Your task to perform on an android device: turn pop-ups on in chrome Image 0: 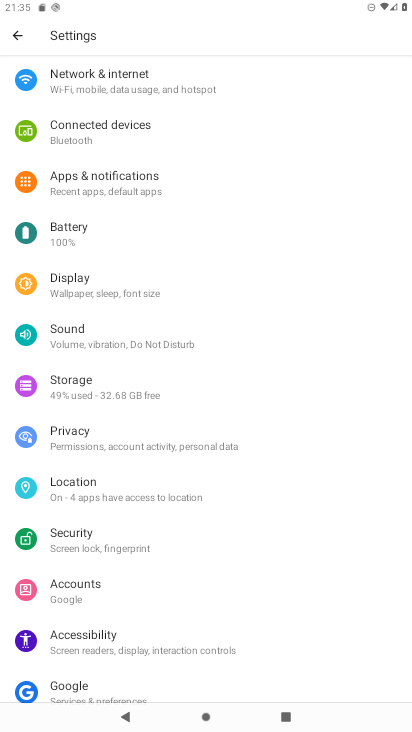
Step 0: drag from (116, 570) to (126, 359)
Your task to perform on an android device: turn pop-ups on in chrome Image 1: 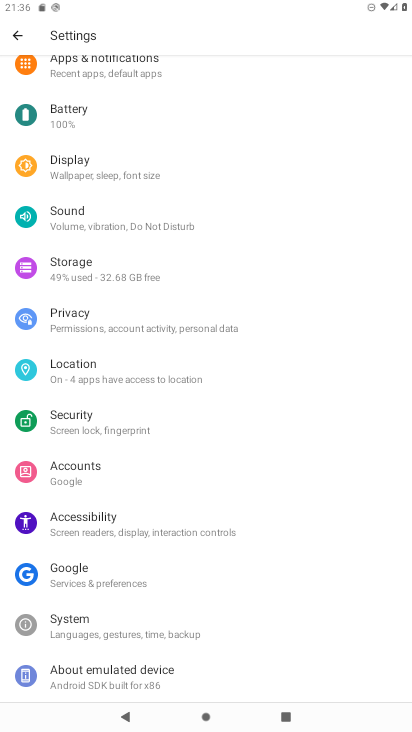
Step 1: drag from (391, 378) to (312, 252)
Your task to perform on an android device: turn pop-ups on in chrome Image 2: 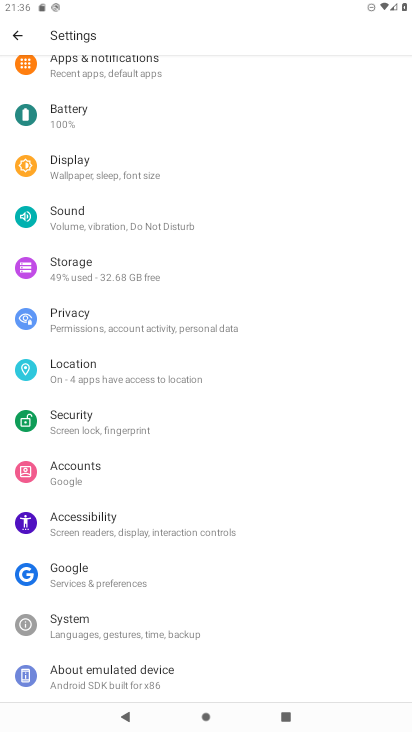
Step 2: press home button
Your task to perform on an android device: turn pop-ups on in chrome Image 3: 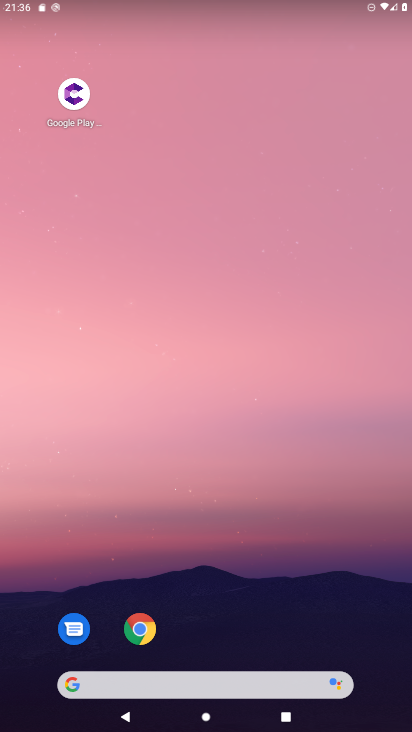
Step 3: drag from (235, 608) to (223, 207)
Your task to perform on an android device: turn pop-ups on in chrome Image 4: 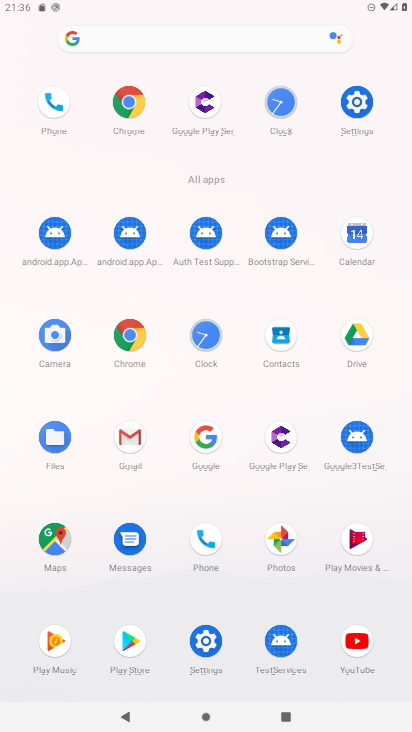
Step 4: click (129, 343)
Your task to perform on an android device: turn pop-ups on in chrome Image 5: 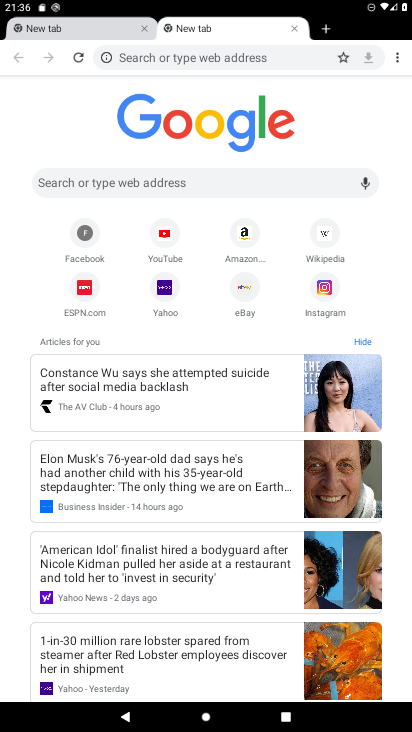
Step 5: click (397, 68)
Your task to perform on an android device: turn pop-ups on in chrome Image 6: 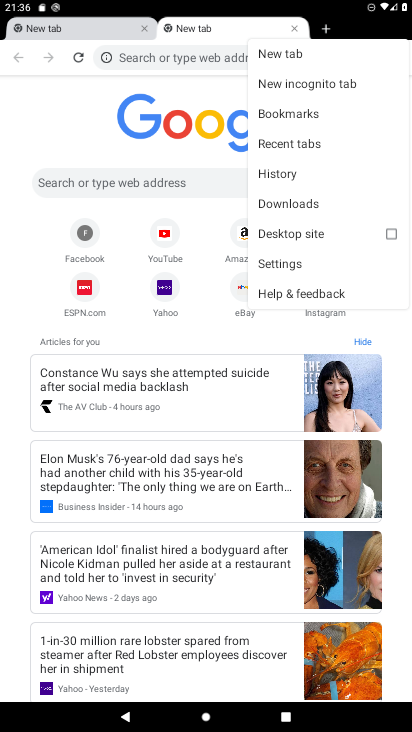
Step 6: click (312, 261)
Your task to perform on an android device: turn pop-ups on in chrome Image 7: 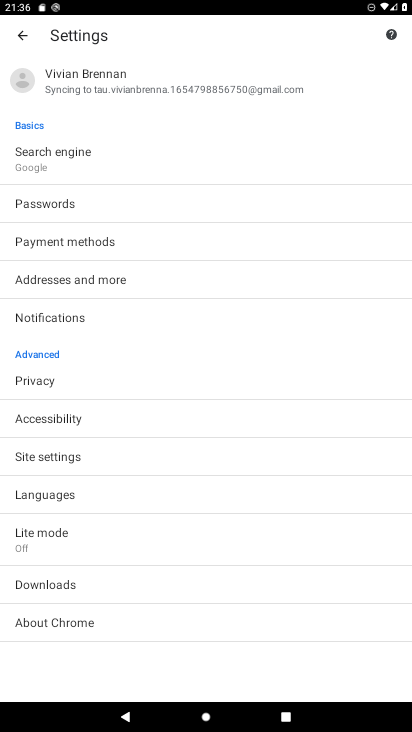
Step 7: click (67, 453)
Your task to perform on an android device: turn pop-ups on in chrome Image 8: 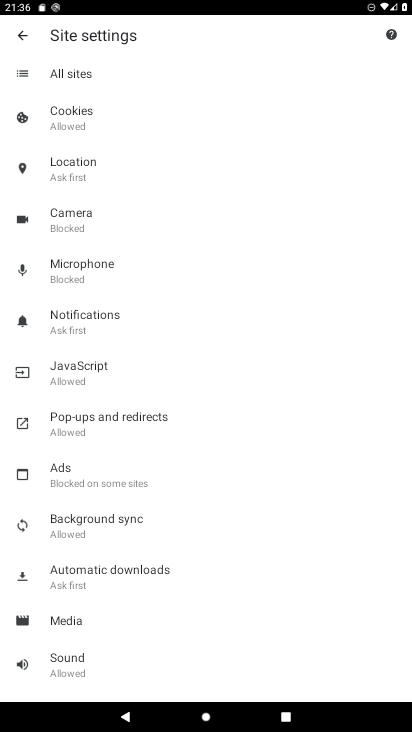
Step 8: click (123, 418)
Your task to perform on an android device: turn pop-ups on in chrome Image 9: 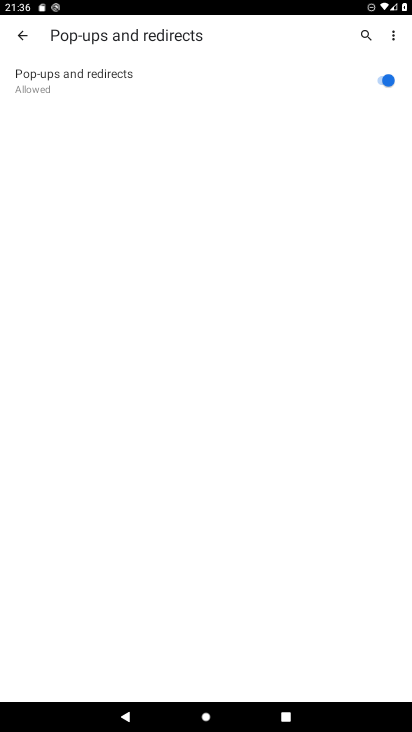
Step 9: task complete